Your task to perform on an android device: Open battery settings Image 0: 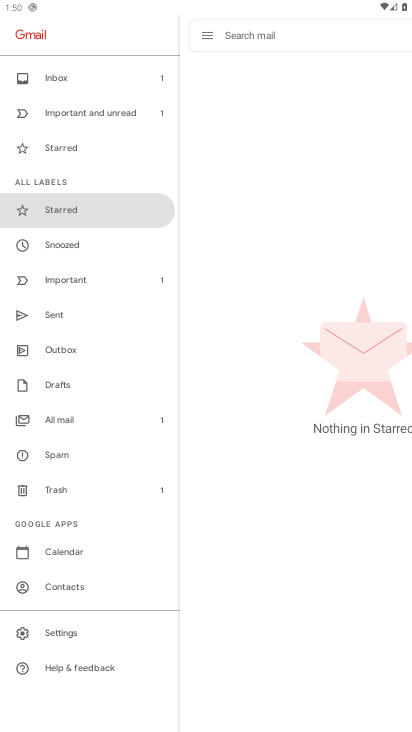
Step 0: press home button
Your task to perform on an android device: Open battery settings Image 1: 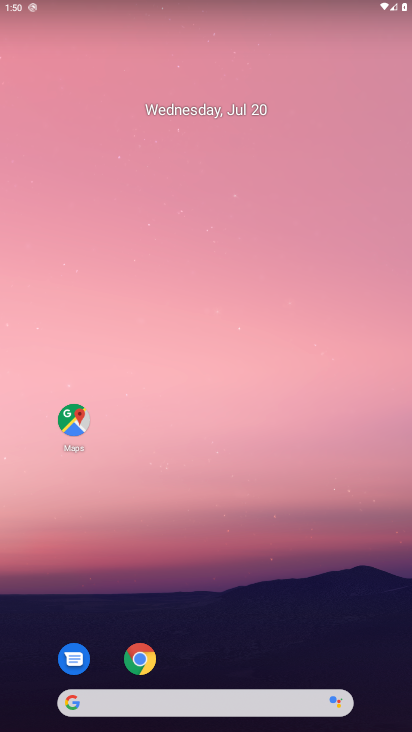
Step 1: drag from (29, 694) to (229, 10)
Your task to perform on an android device: Open battery settings Image 2: 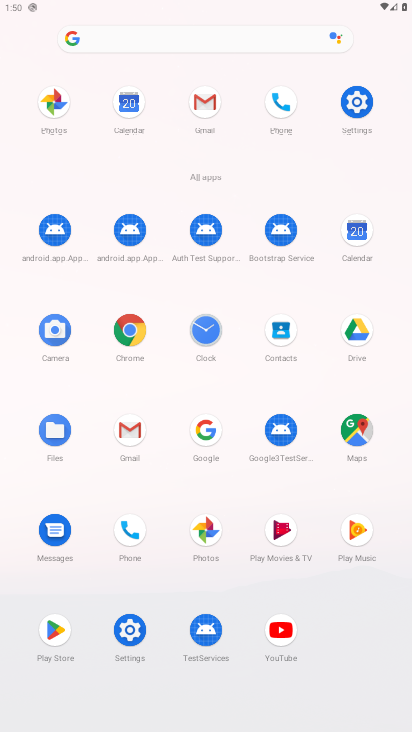
Step 2: click (135, 635)
Your task to perform on an android device: Open battery settings Image 3: 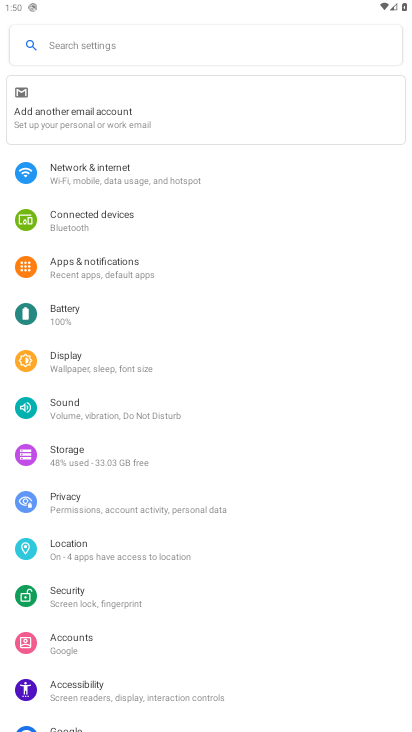
Step 3: click (75, 322)
Your task to perform on an android device: Open battery settings Image 4: 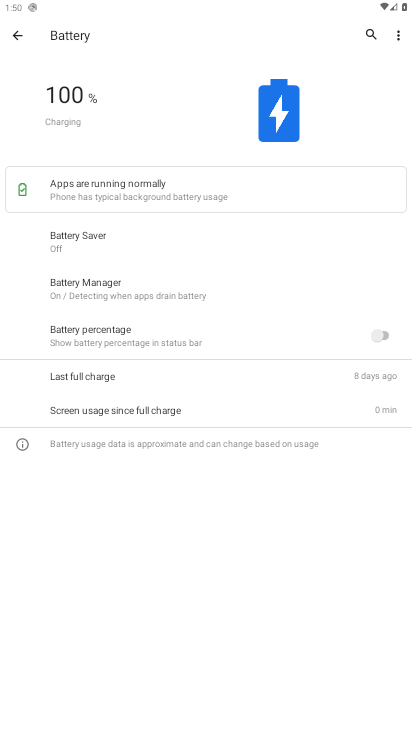
Step 4: task complete